Your task to perform on an android device: turn on translation in the chrome app Image 0: 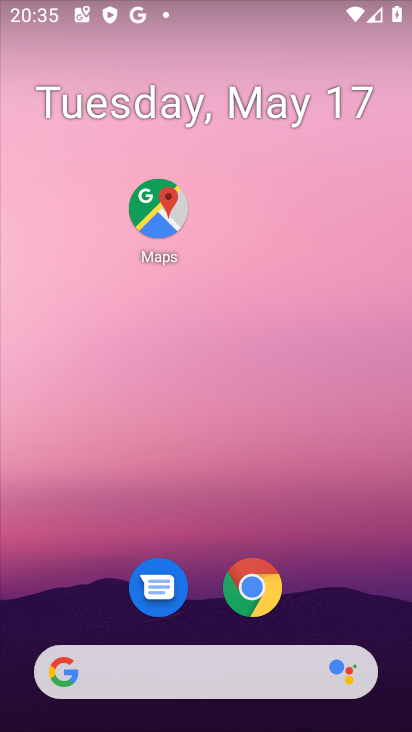
Step 0: click (240, 582)
Your task to perform on an android device: turn on translation in the chrome app Image 1: 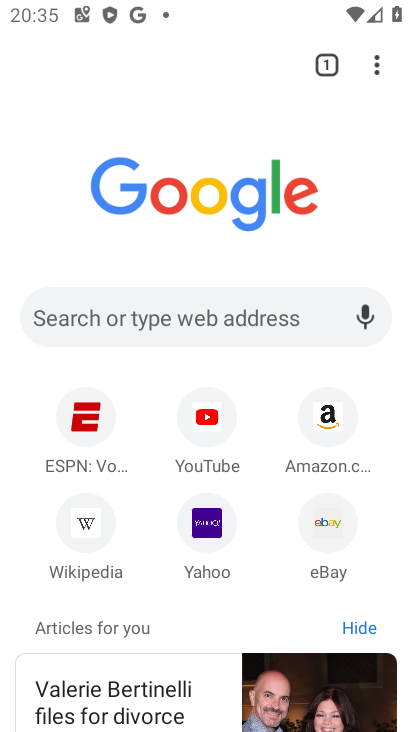
Step 1: click (373, 75)
Your task to perform on an android device: turn on translation in the chrome app Image 2: 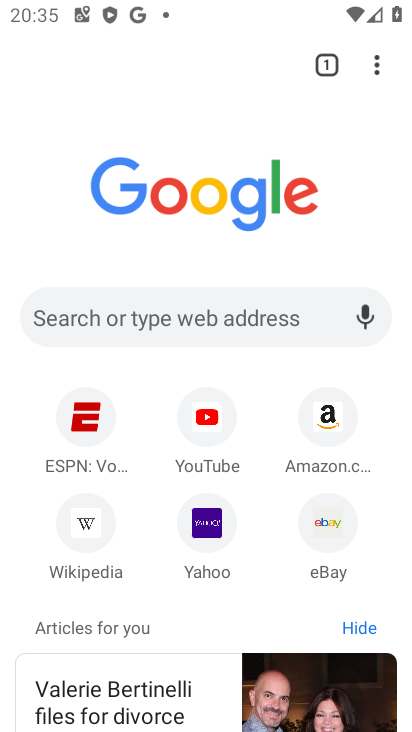
Step 2: click (378, 70)
Your task to perform on an android device: turn on translation in the chrome app Image 3: 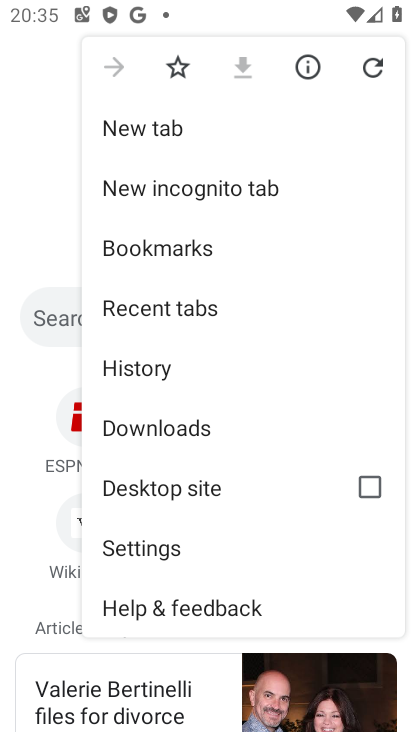
Step 3: click (138, 551)
Your task to perform on an android device: turn on translation in the chrome app Image 4: 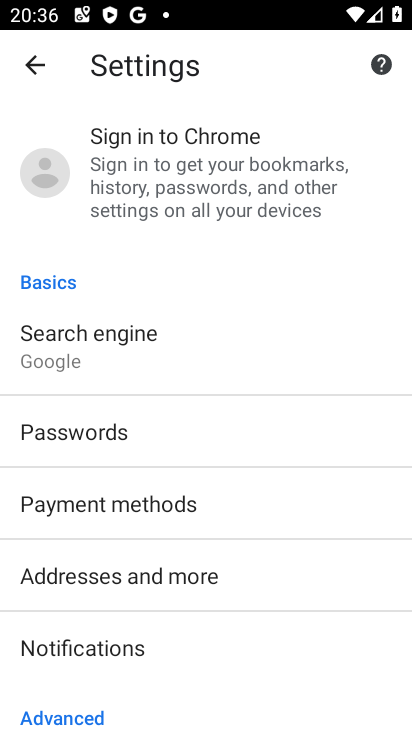
Step 4: drag from (48, 610) to (190, 237)
Your task to perform on an android device: turn on translation in the chrome app Image 5: 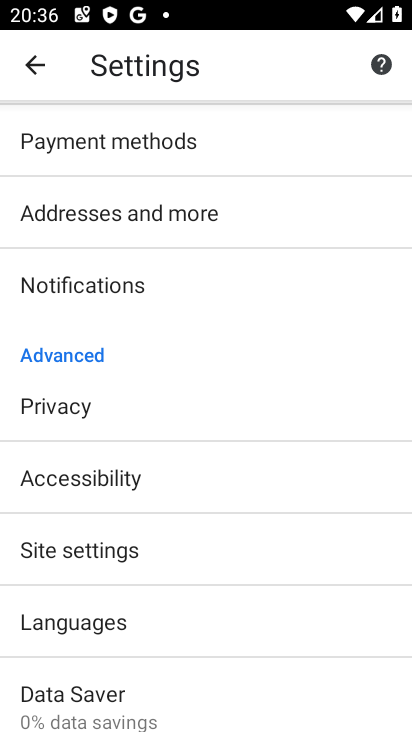
Step 5: click (77, 629)
Your task to perform on an android device: turn on translation in the chrome app Image 6: 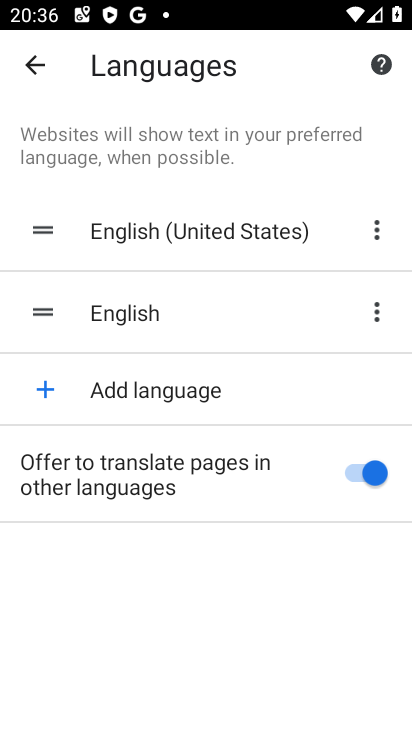
Step 6: task complete